Your task to perform on an android device: Search for a 100 ft extension cord Image 0: 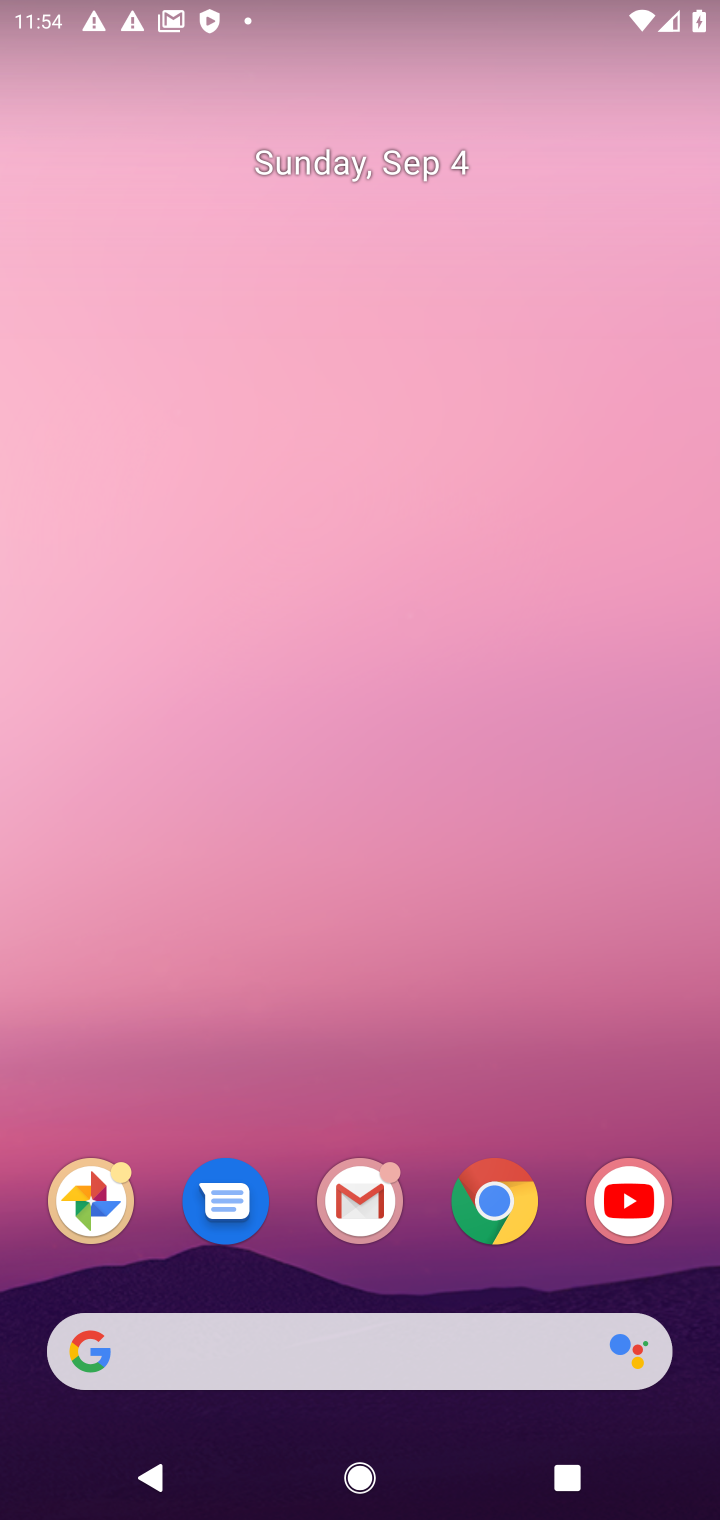
Step 0: click (494, 1206)
Your task to perform on an android device: Search for a 100 ft extension cord Image 1: 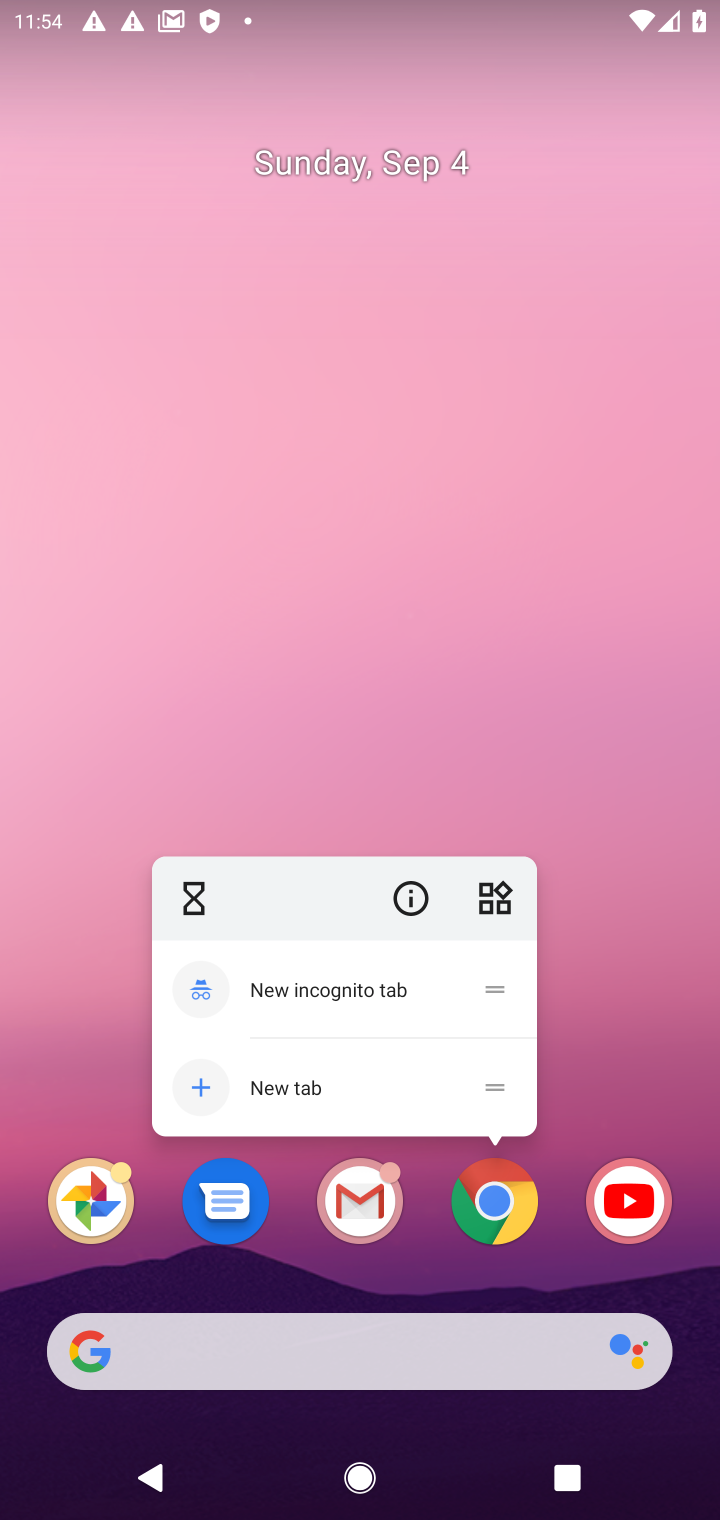
Step 1: click (484, 1202)
Your task to perform on an android device: Search for a 100 ft extension cord Image 2: 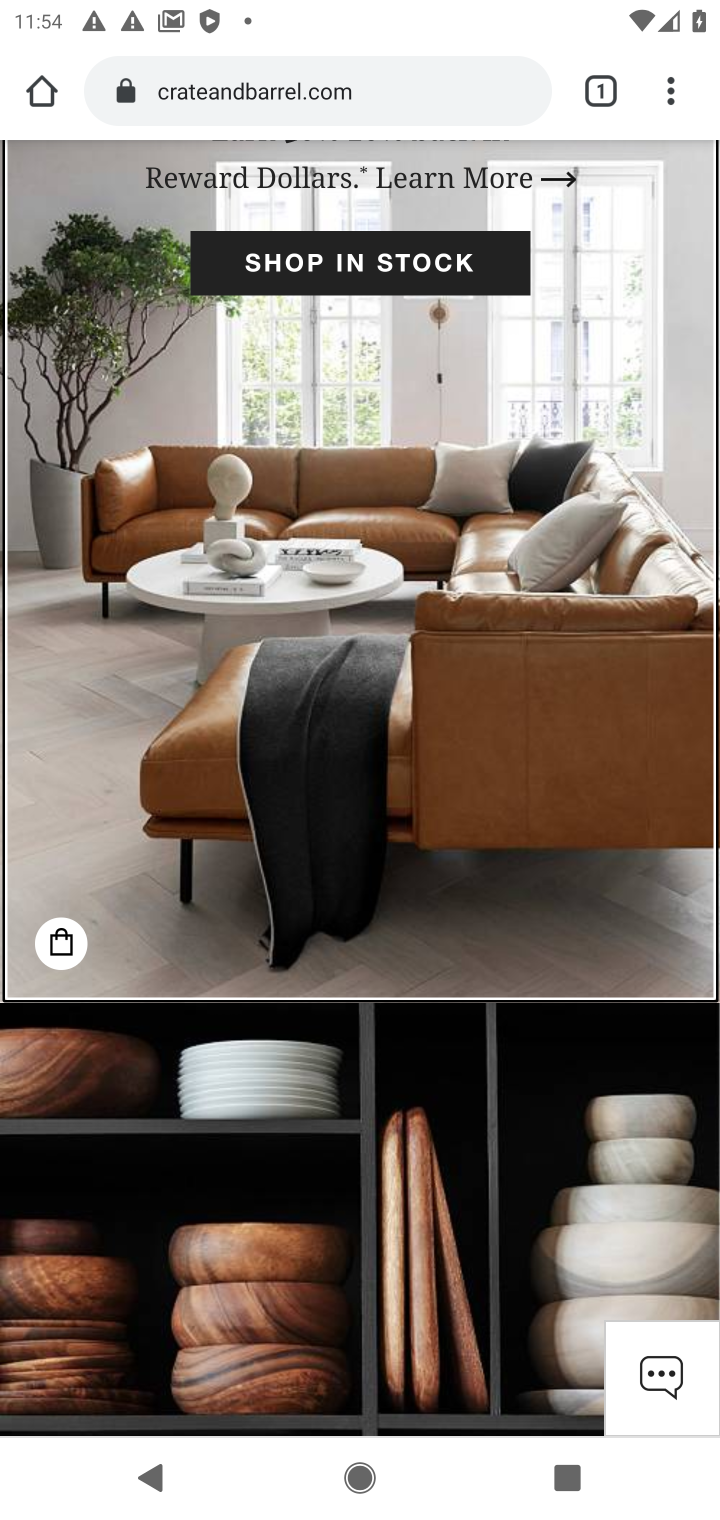
Step 2: click (345, 70)
Your task to perform on an android device: Search for a 100 ft extension cord Image 3: 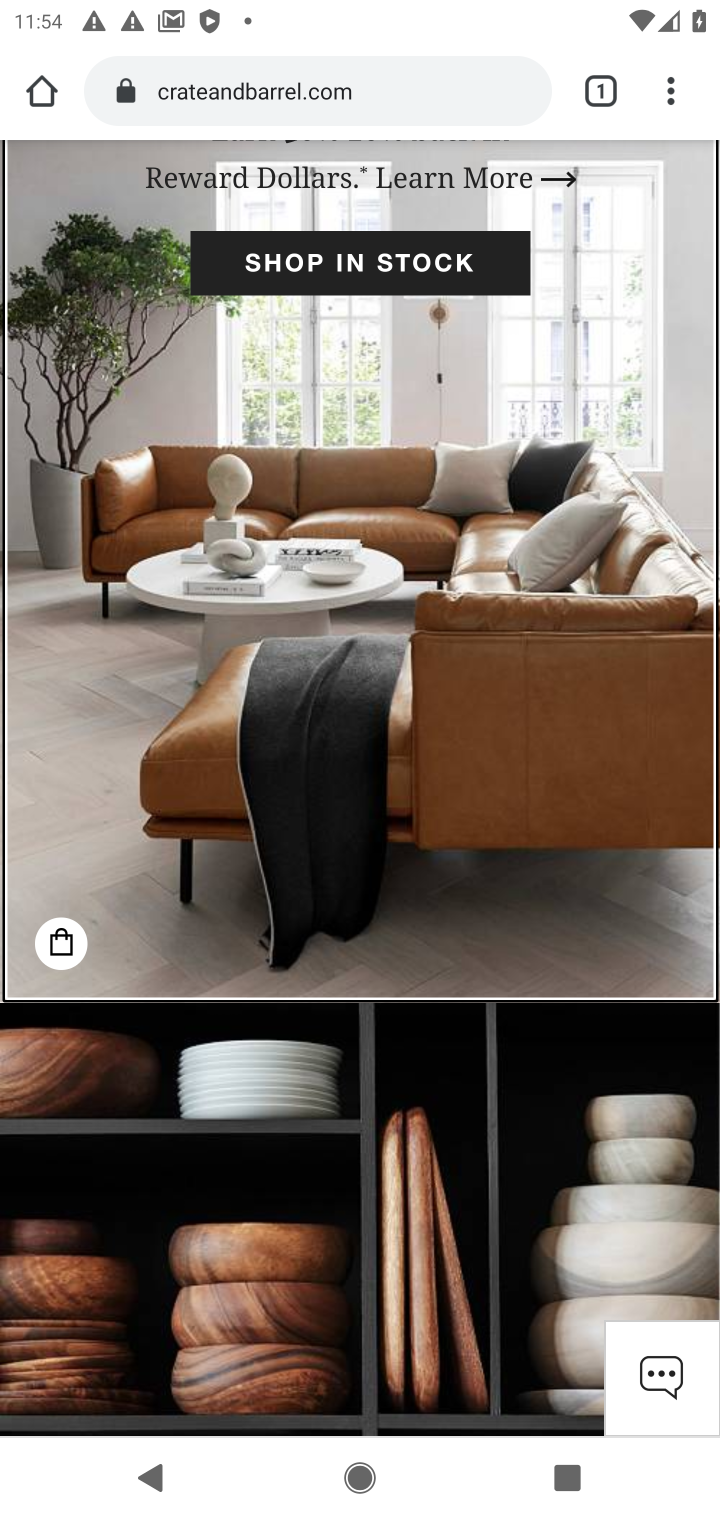
Step 3: click (327, 96)
Your task to perform on an android device: Search for a 100 ft extension cord Image 4: 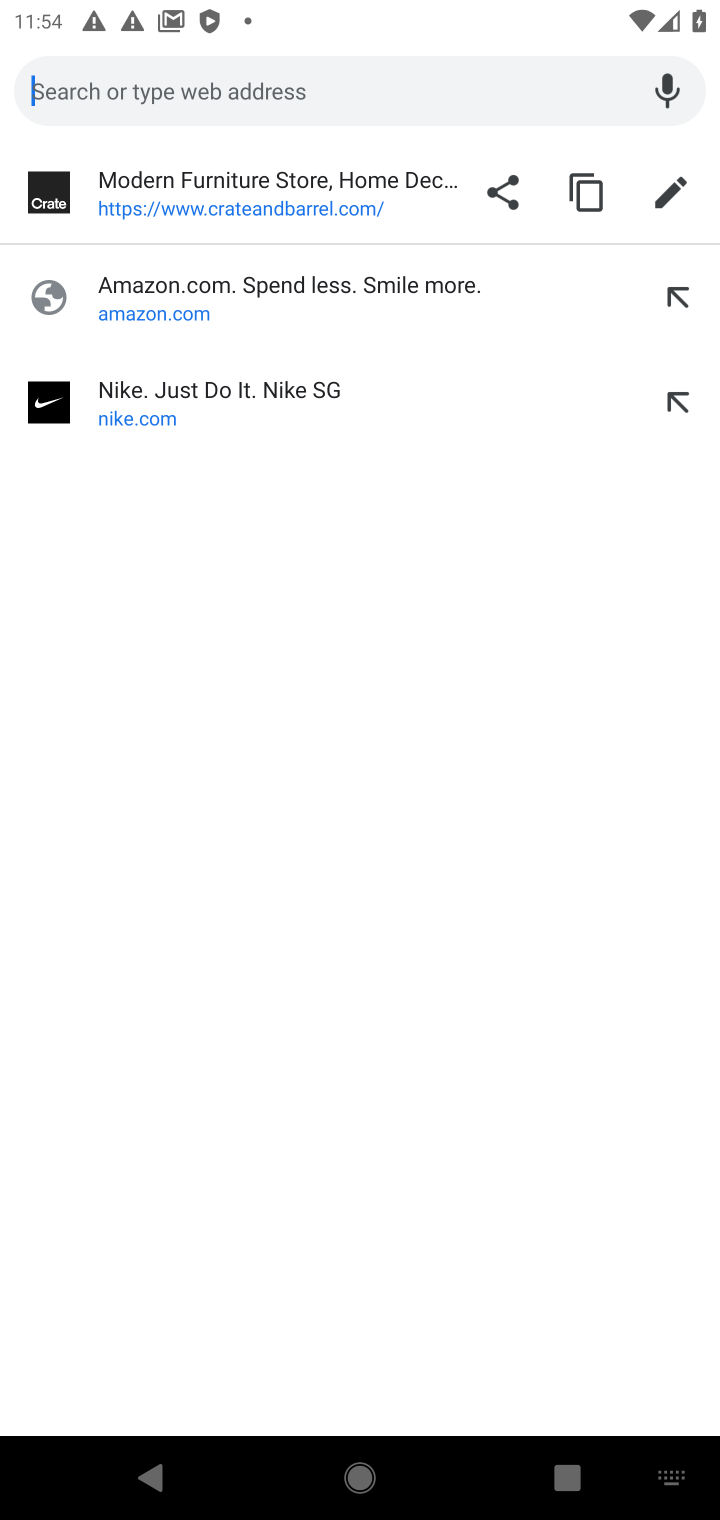
Step 4: type "100 ft extension cord"
Your task to perform on an android device: Search for a 100 ft extension cord Image 5: 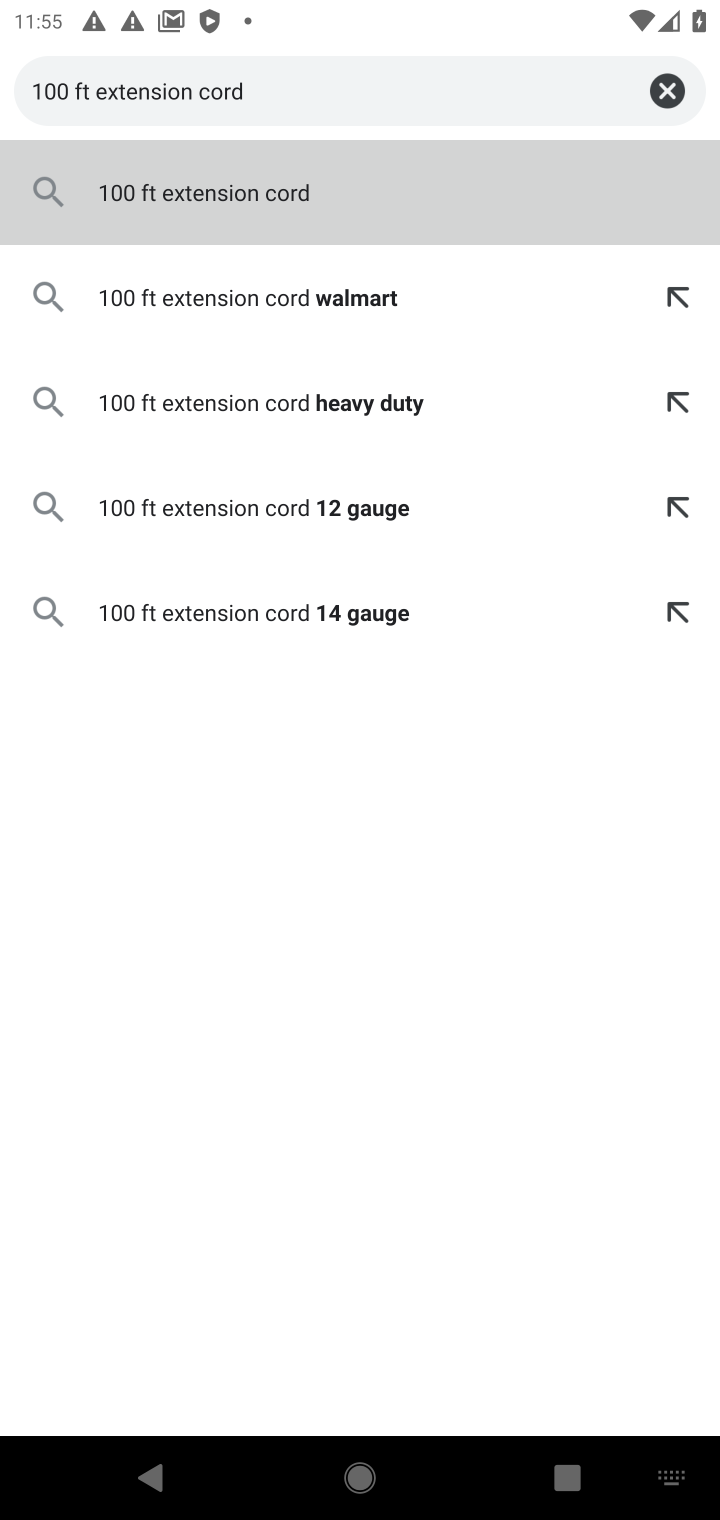
Step 5: type ""
Your task to perform on an android device: Search for a 100 ft extension cord Image 6: 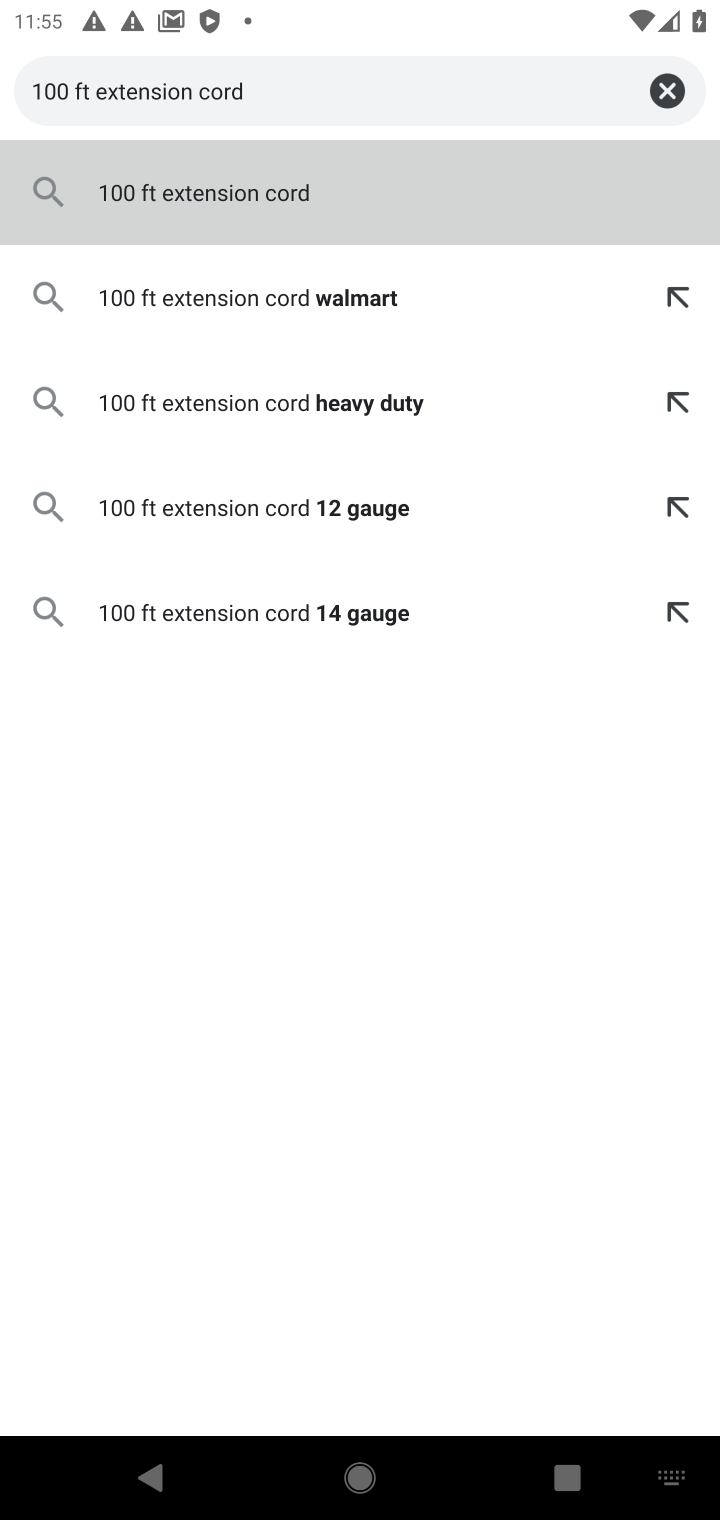
Step 6: click (223, 86)
Your task to perform on an android device: Search for a 100 ft extension cord Image 7: 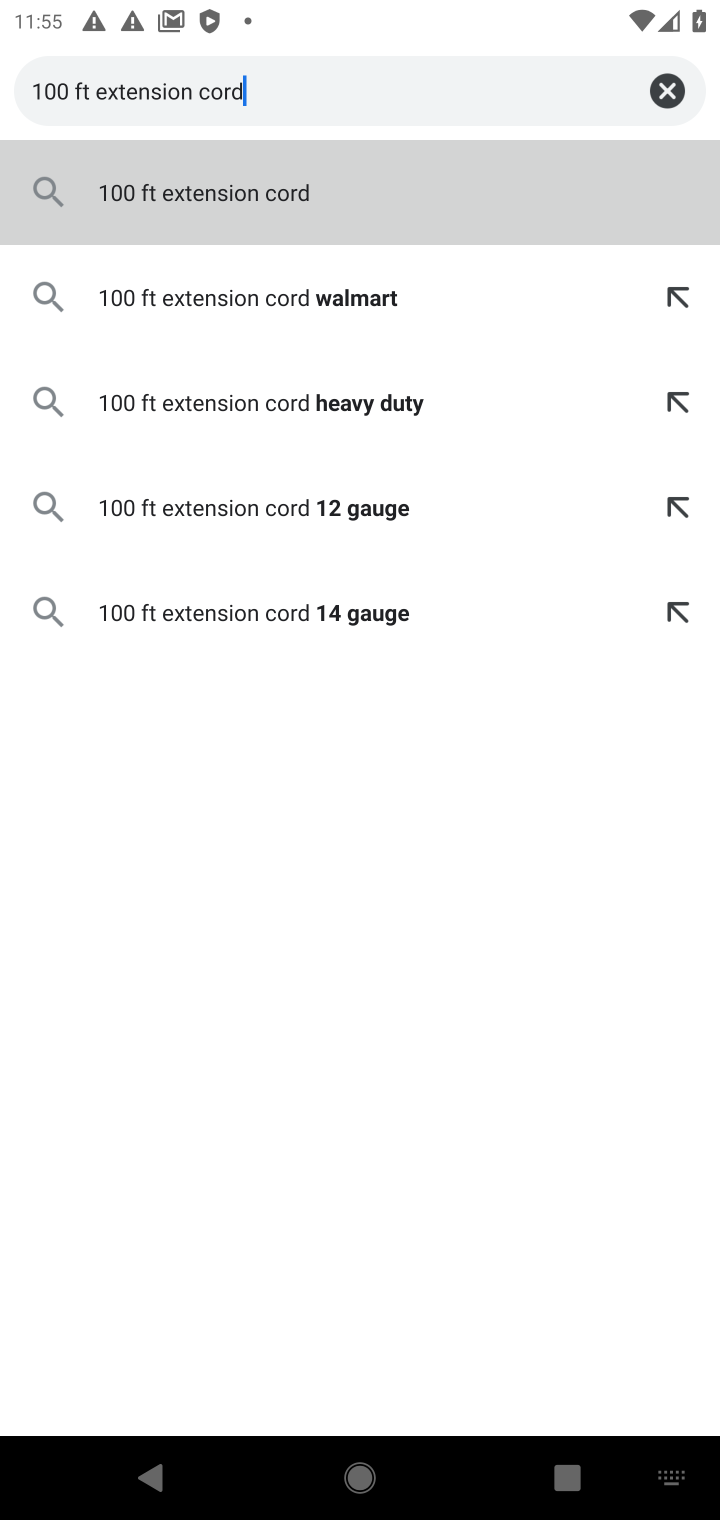
Step 7: click (236, 194)
Your task to perform on an android device: Search for a 100 ft extension cord Image 8: 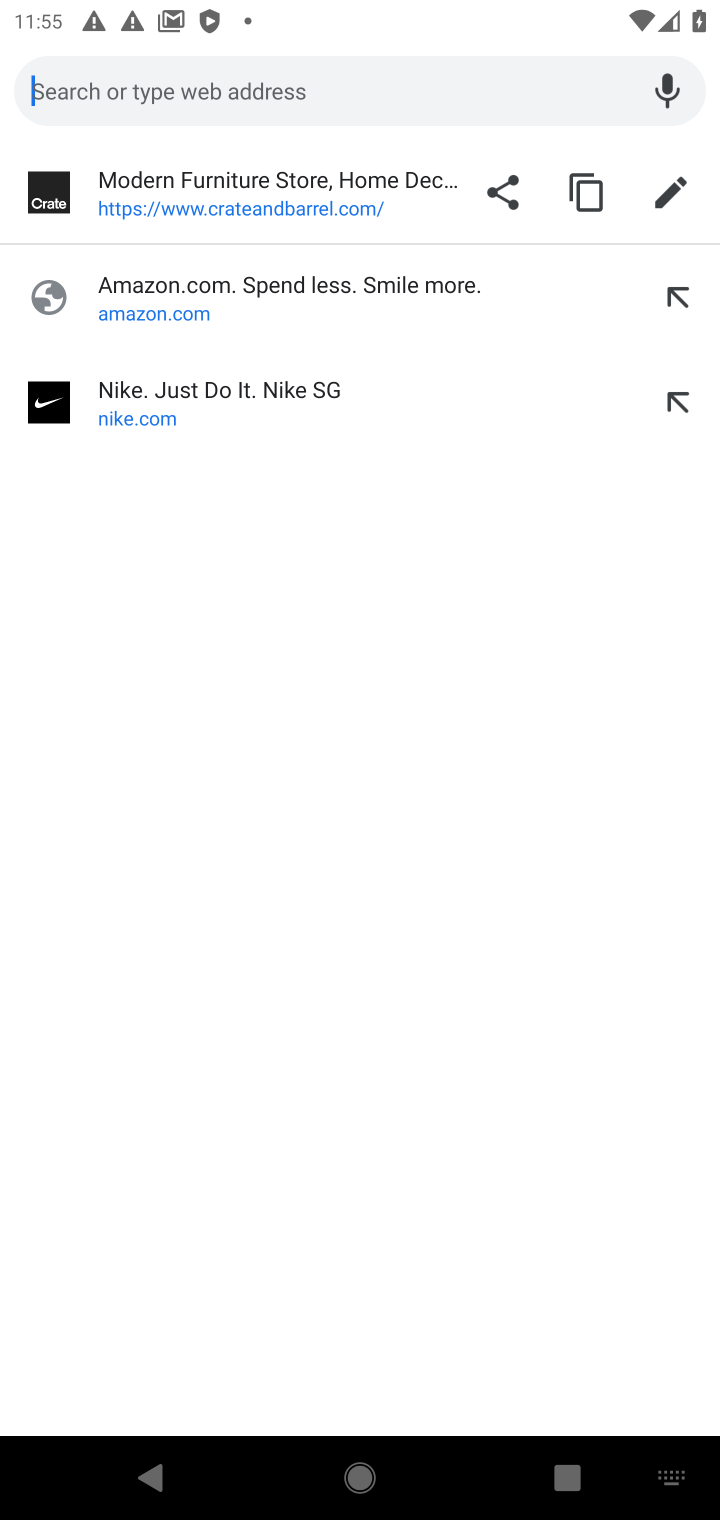
Step 8: click (300, 100)
Your task to perform on an android device: Search for a 100 ft extension cord Image 9: 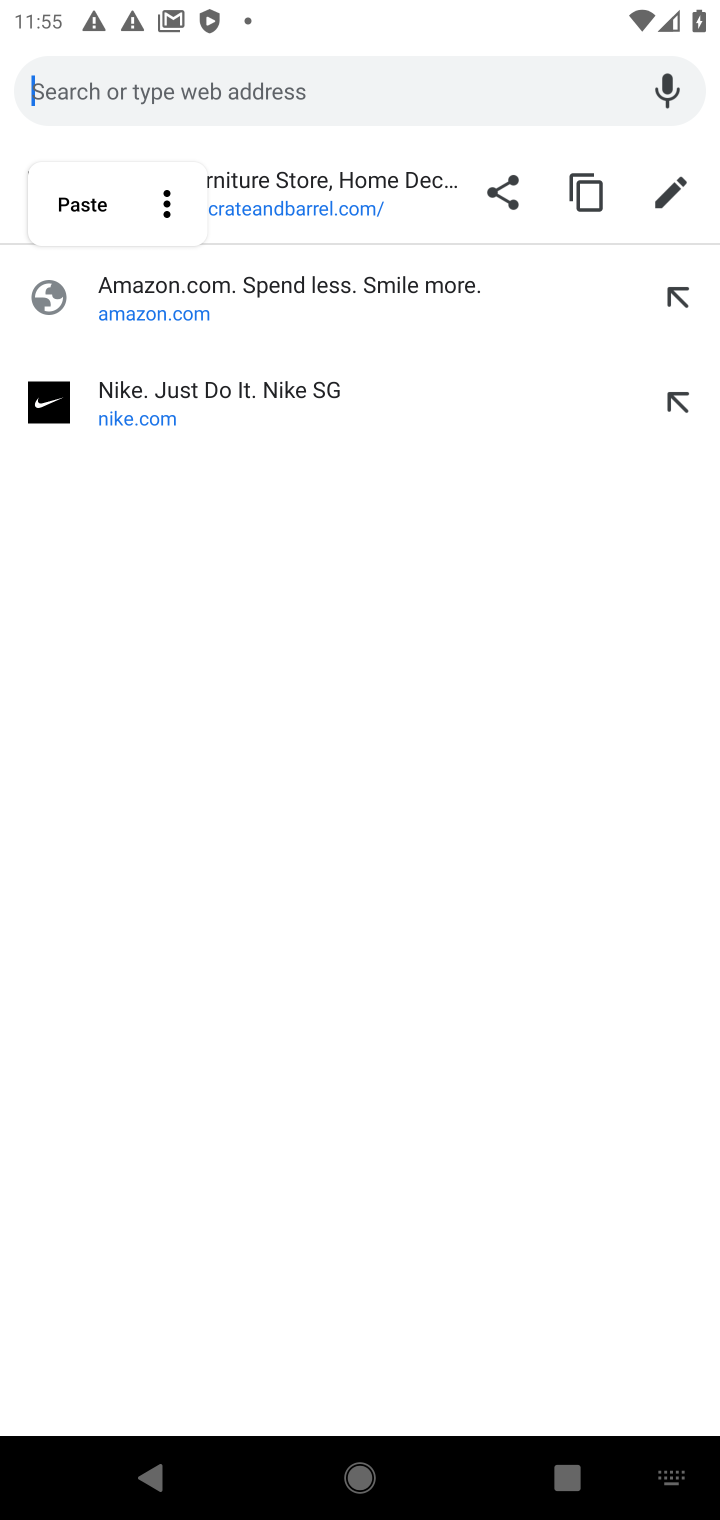
Step 9: type "100 ft extension cord"
Your task to perform on an android device: Search for a 100 ft extension cord Image 10: 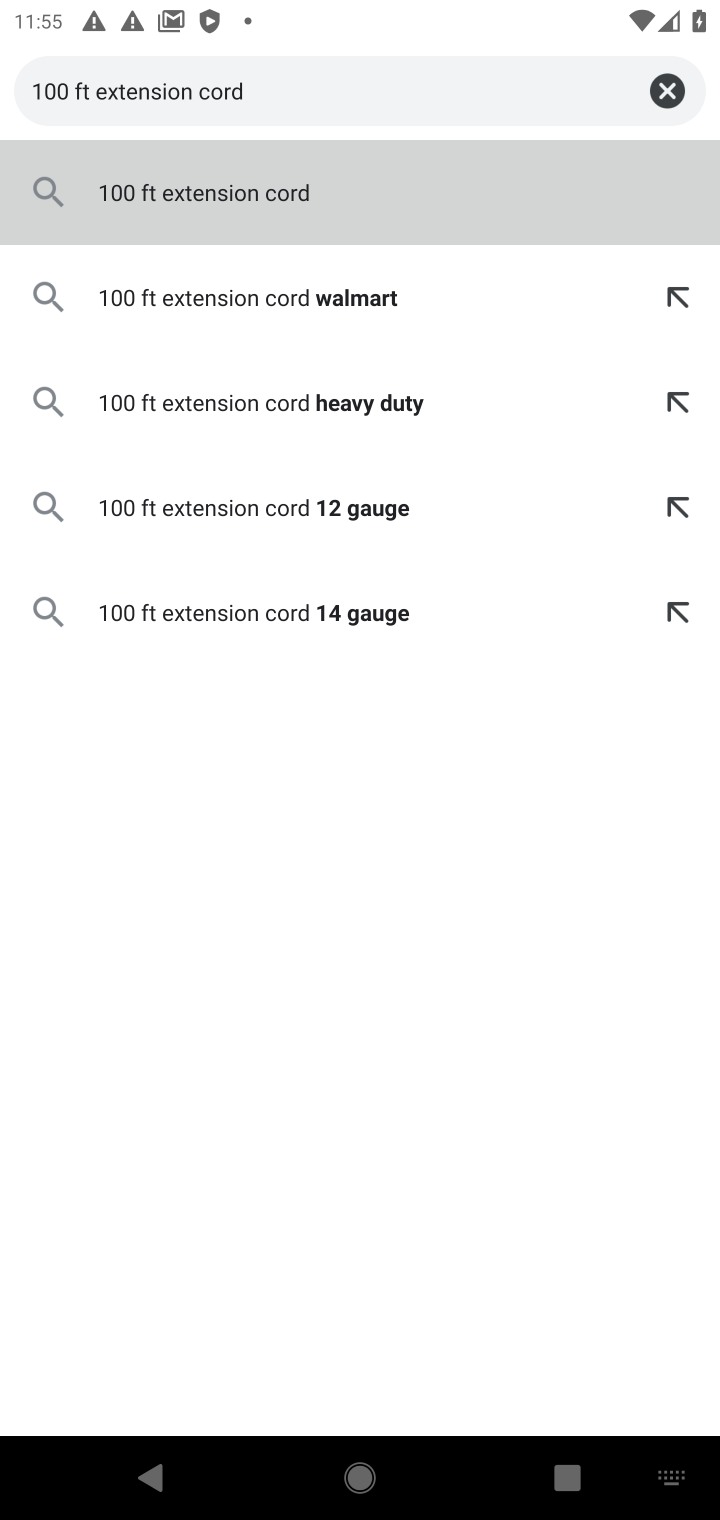
Step 10: press back button
Your task to perform on an android device: Search for a 100 ft extension cord Image 11: 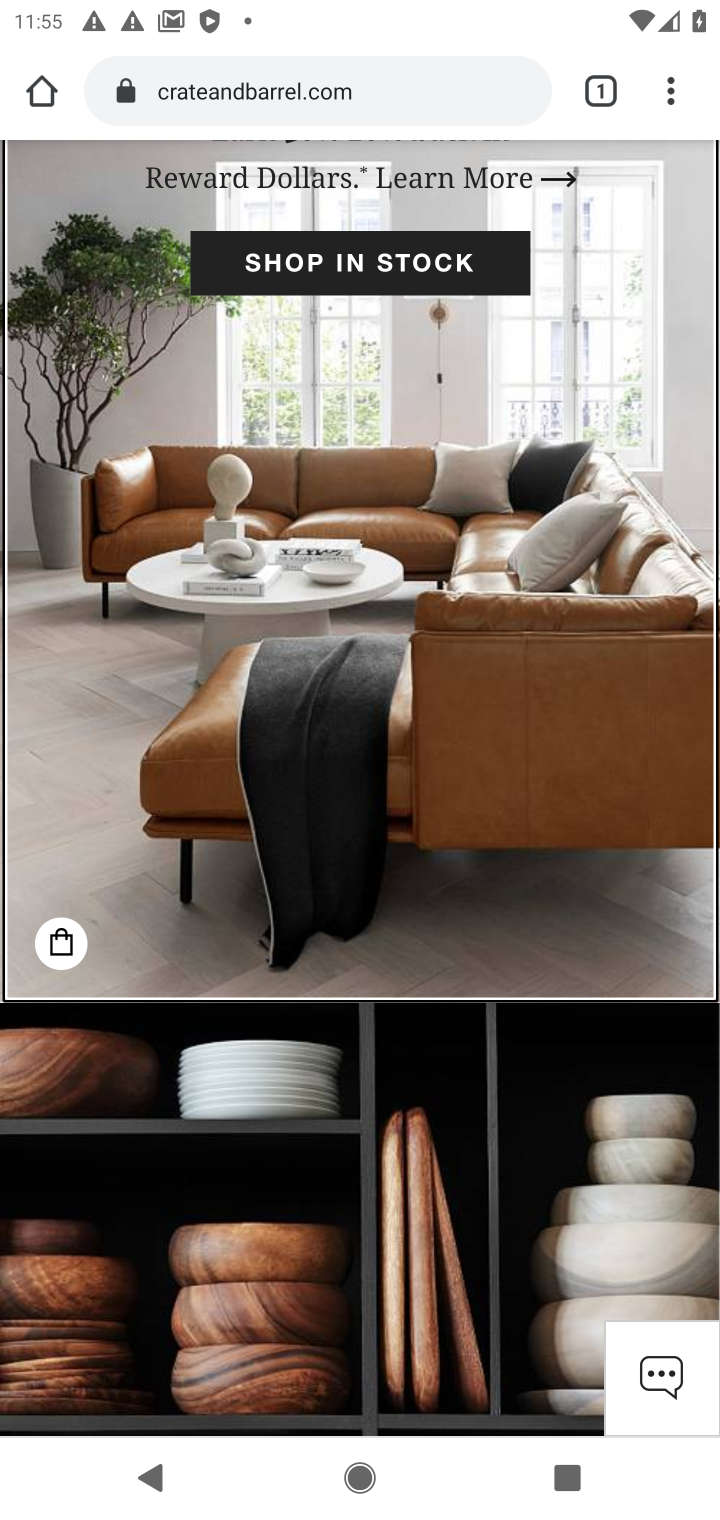
Step 11: click (233, 300)
Your task to perform on an android device: Search for a 100 ft extension cord Image 12: 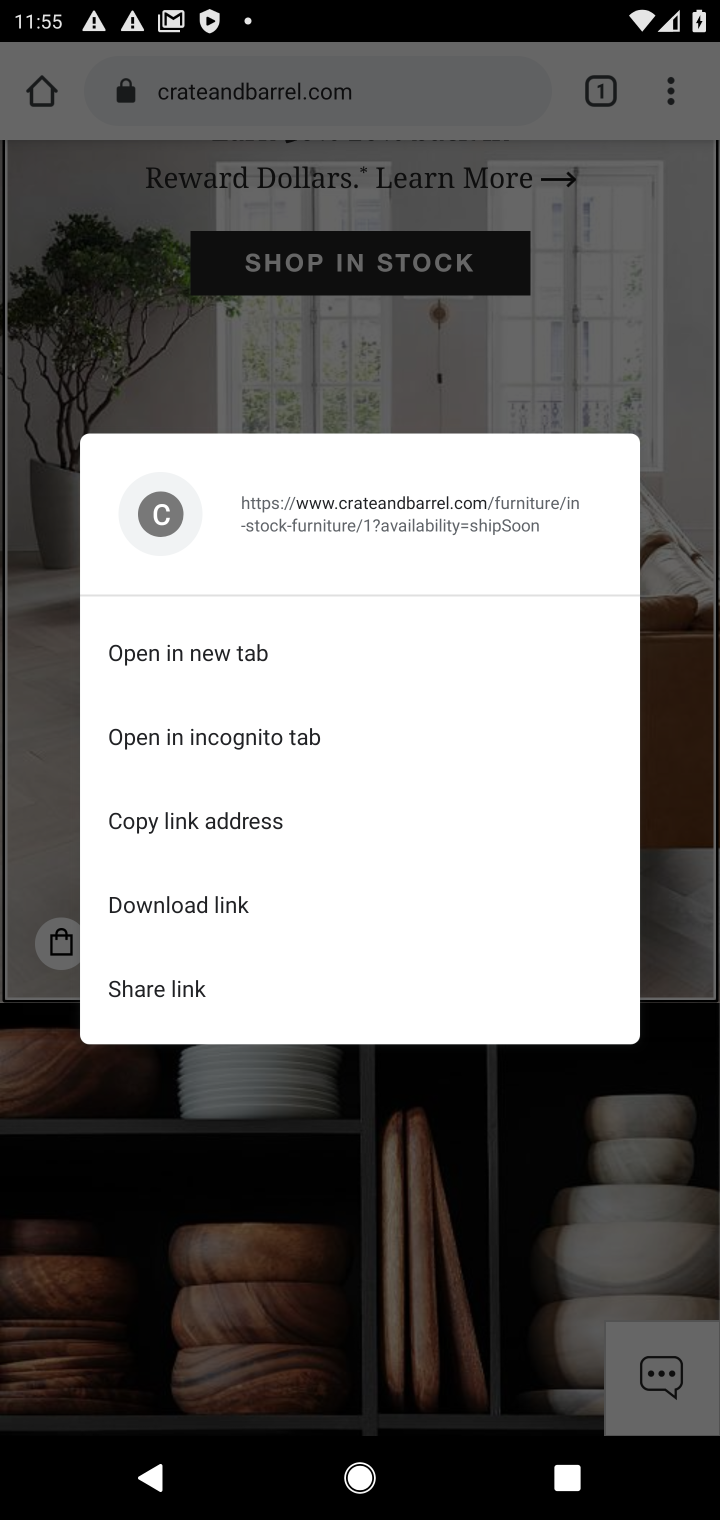
Step 12: click (356, 66)
Your task to perform on an android device: Search for a 100 ft extension cord Image 13: 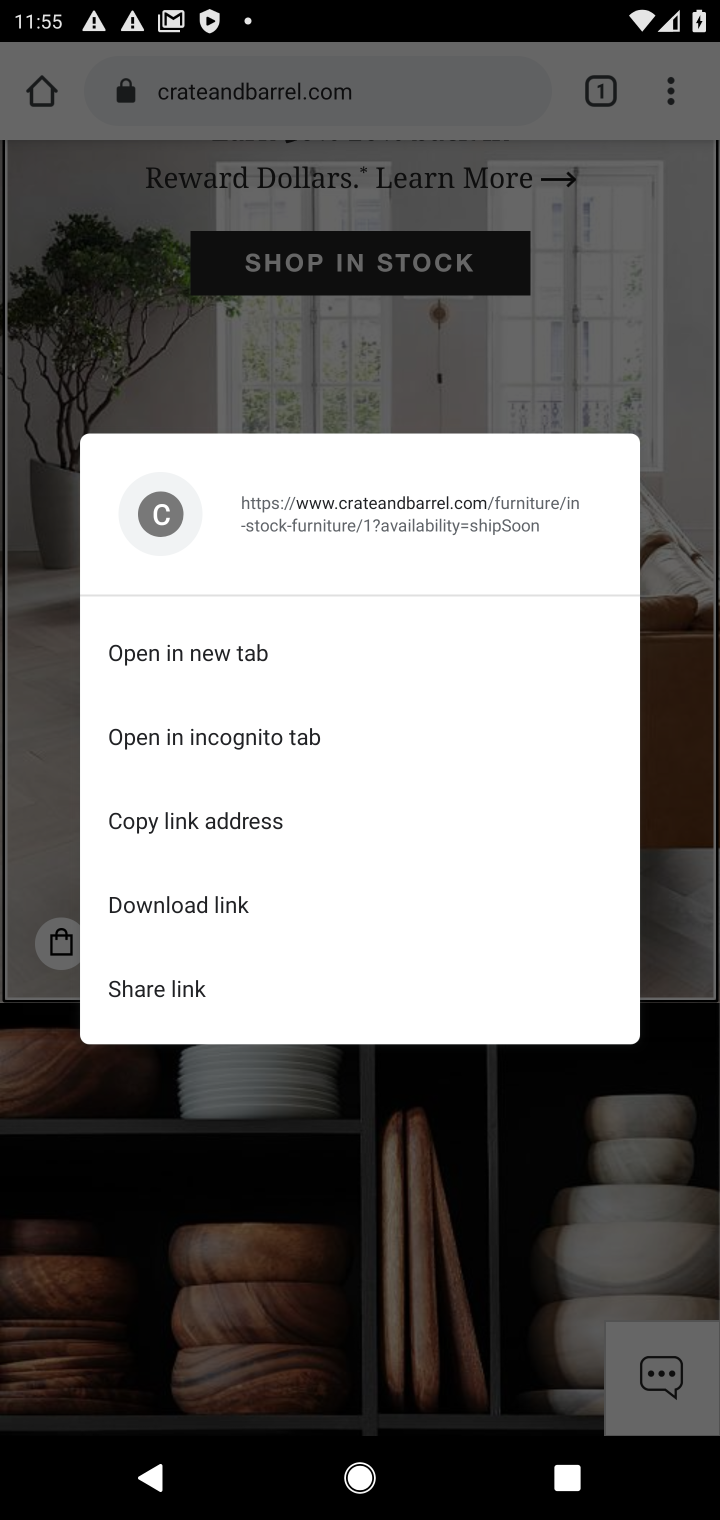
Step 13: click (325, 93)
Your task to perform on an android device: Search for a 100 ft extension cord Image 14: 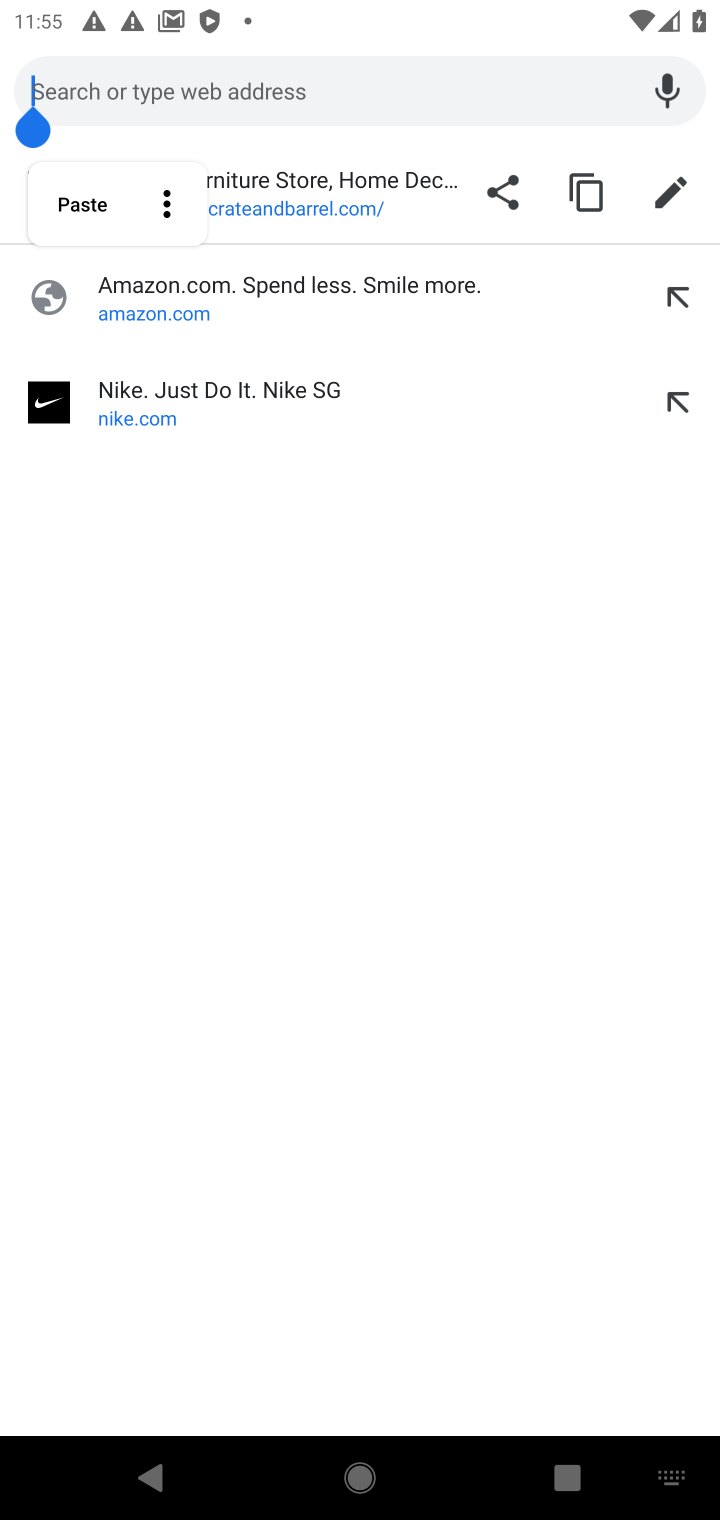
Step 14: press home button
Your task to perform on an android device: Search for a 100 ft extension cord Image 15: 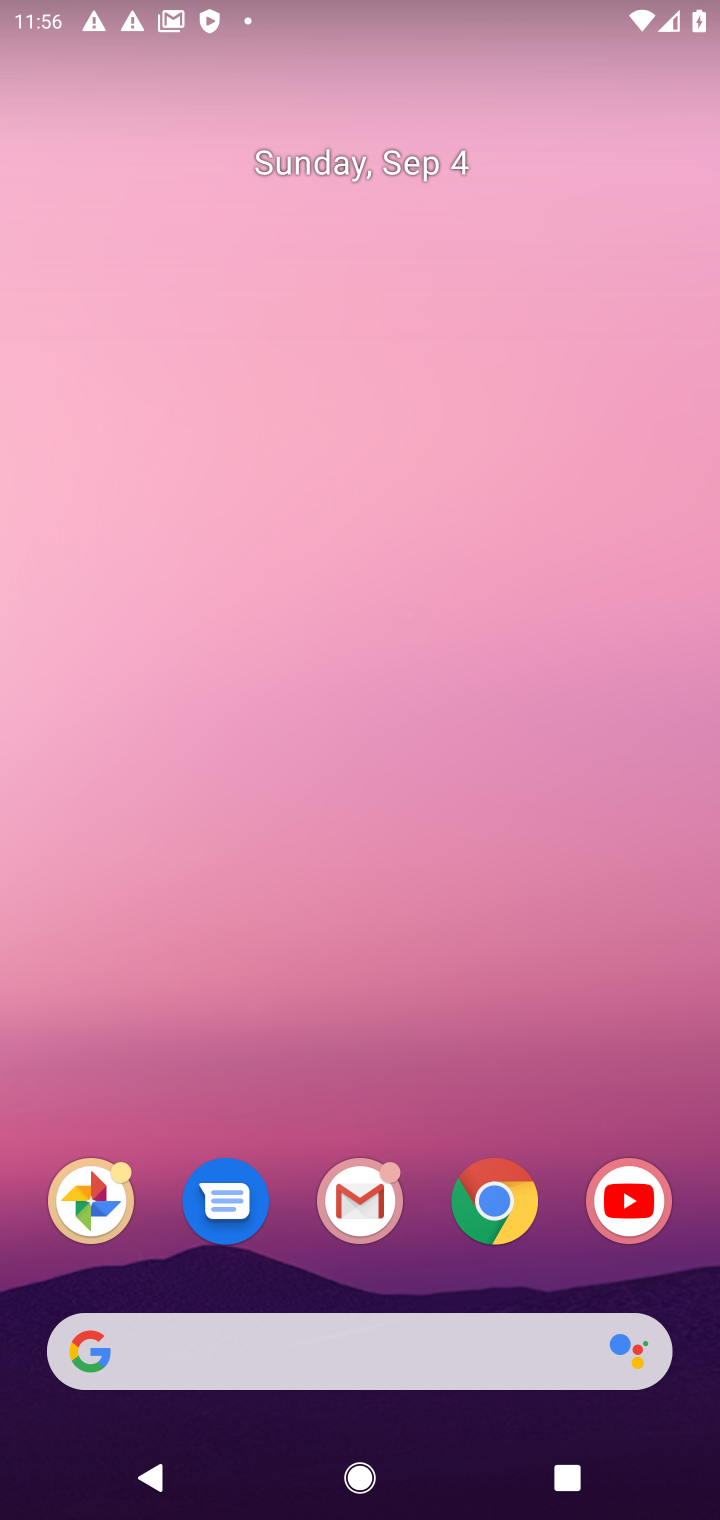
Step 15: click (466, 1226)
Your task to perform on an android device: Search for a 100 ft extension cord Image 16: 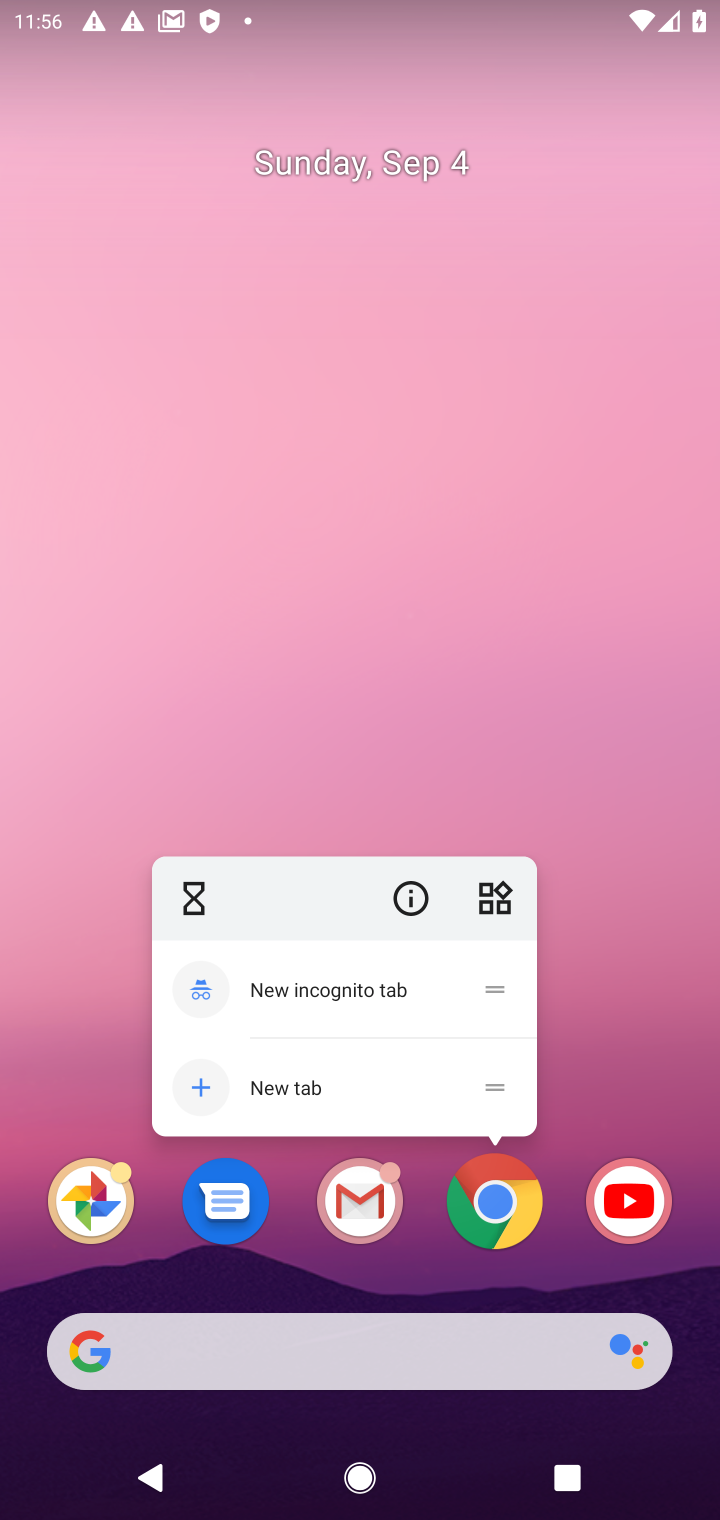
Step 16: click (487, 1212)
Your task to perform on an android device: Search for a 100 ft extension cord Image 17: 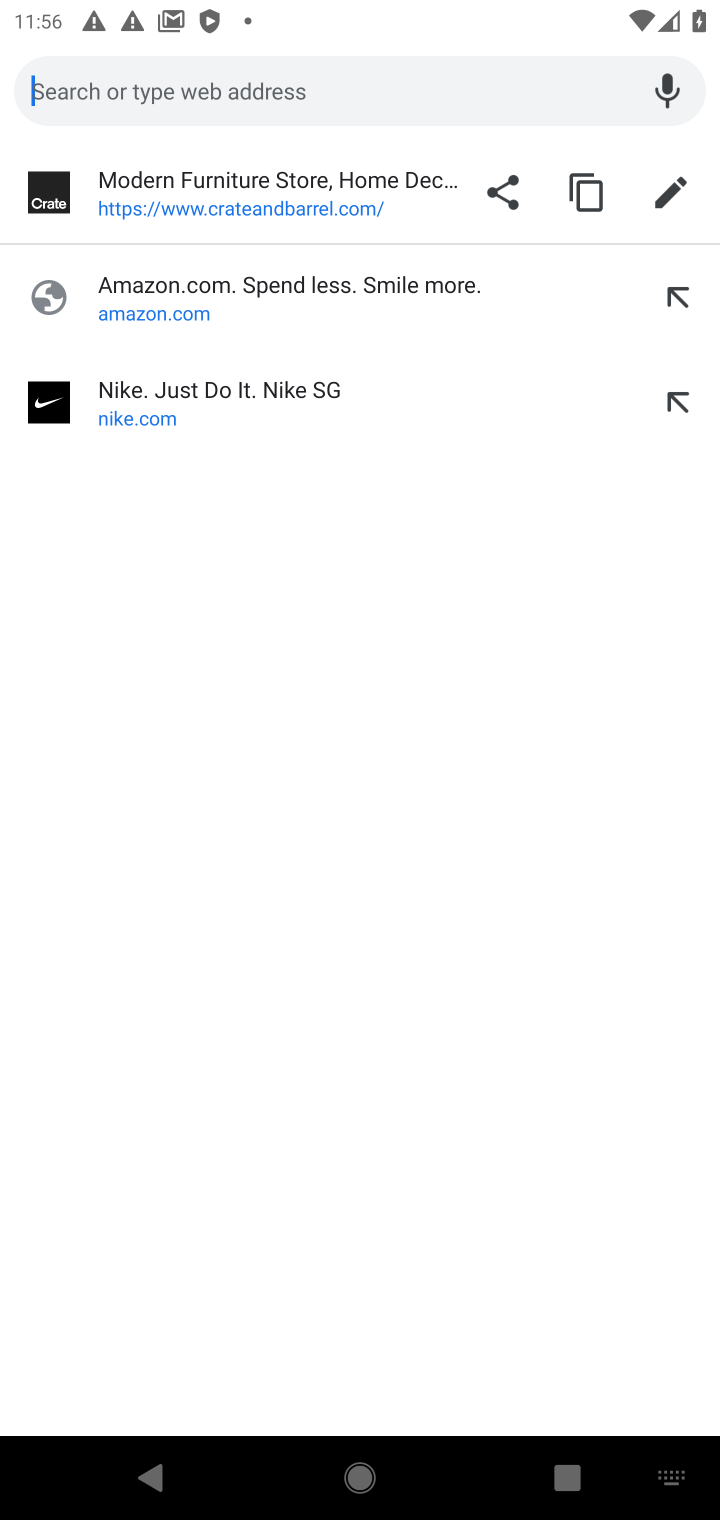
Step 17: type "100 ft extension cord"
Your task to perform on an android device: Search for a 100 ft extension cord Image 18: 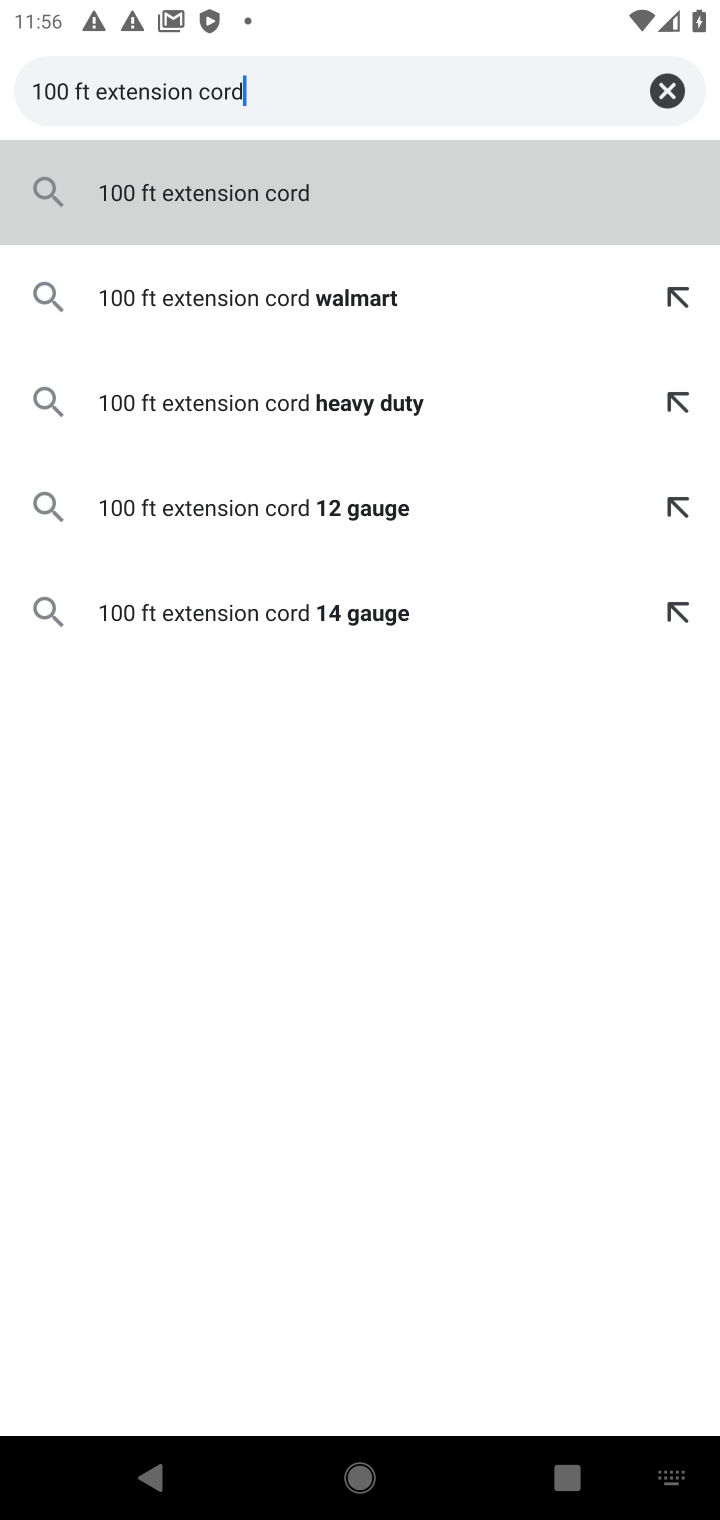
Step 18: type ""
Your task to perform on an android device: Search for a 100 ft extension cord Image 19: 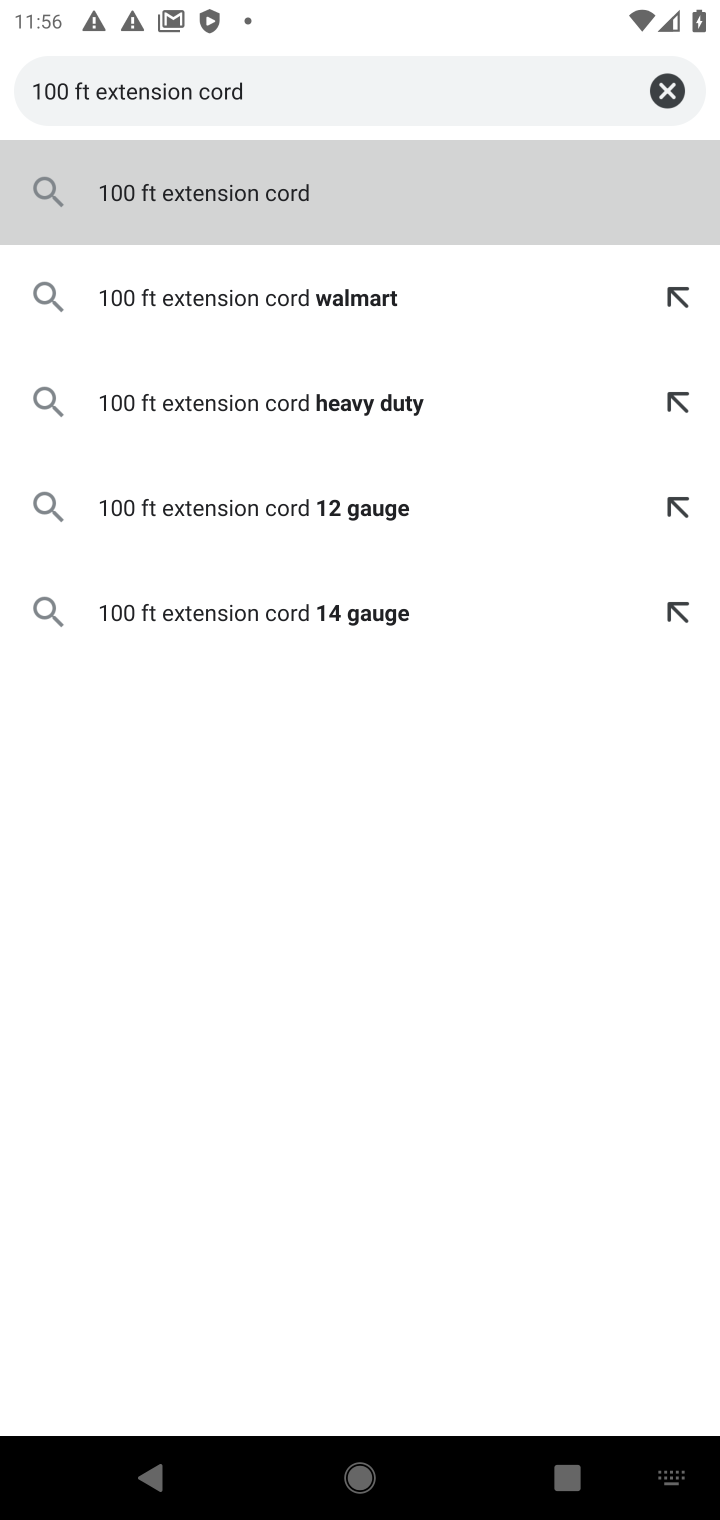
Step 19: click (239, 298)
Your task to perform on an android device: Search for a 100 ft extension cord Image 20: 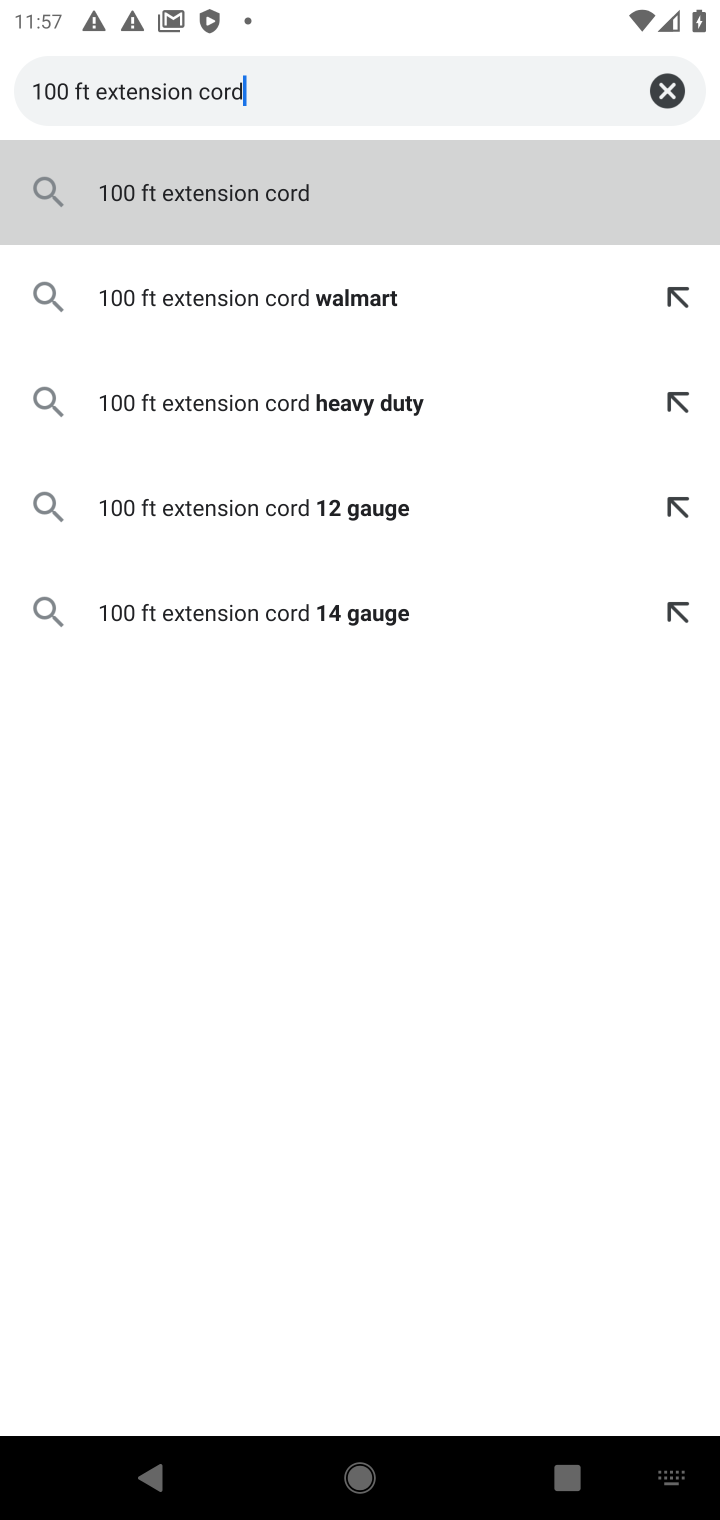
Step 20: click (344, 287)
Your task to perform on an android device: Search for a 100 ft extension cord Image 21: 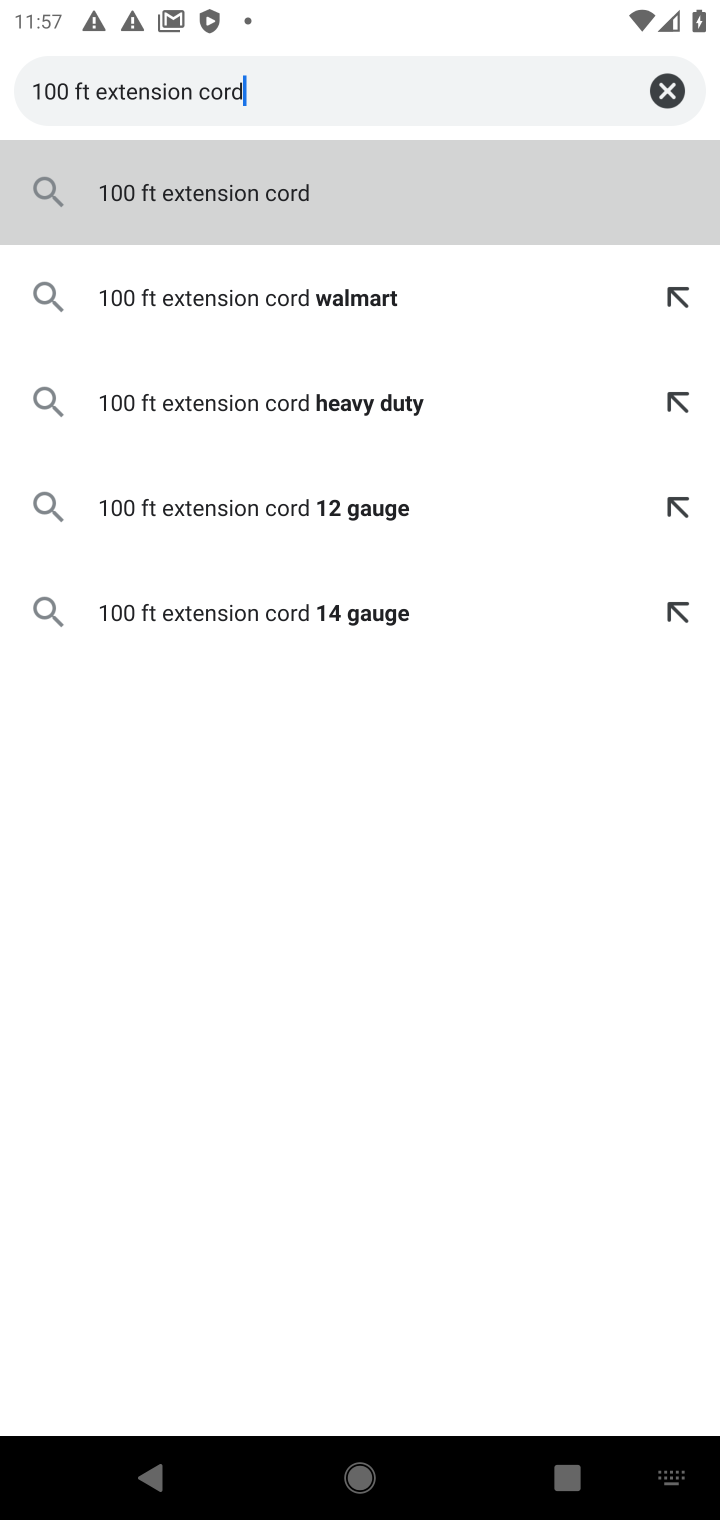
Step 21: click (338, 287)
Your task to perform on an android device: Search for a 100 ft extension cord Image 22: 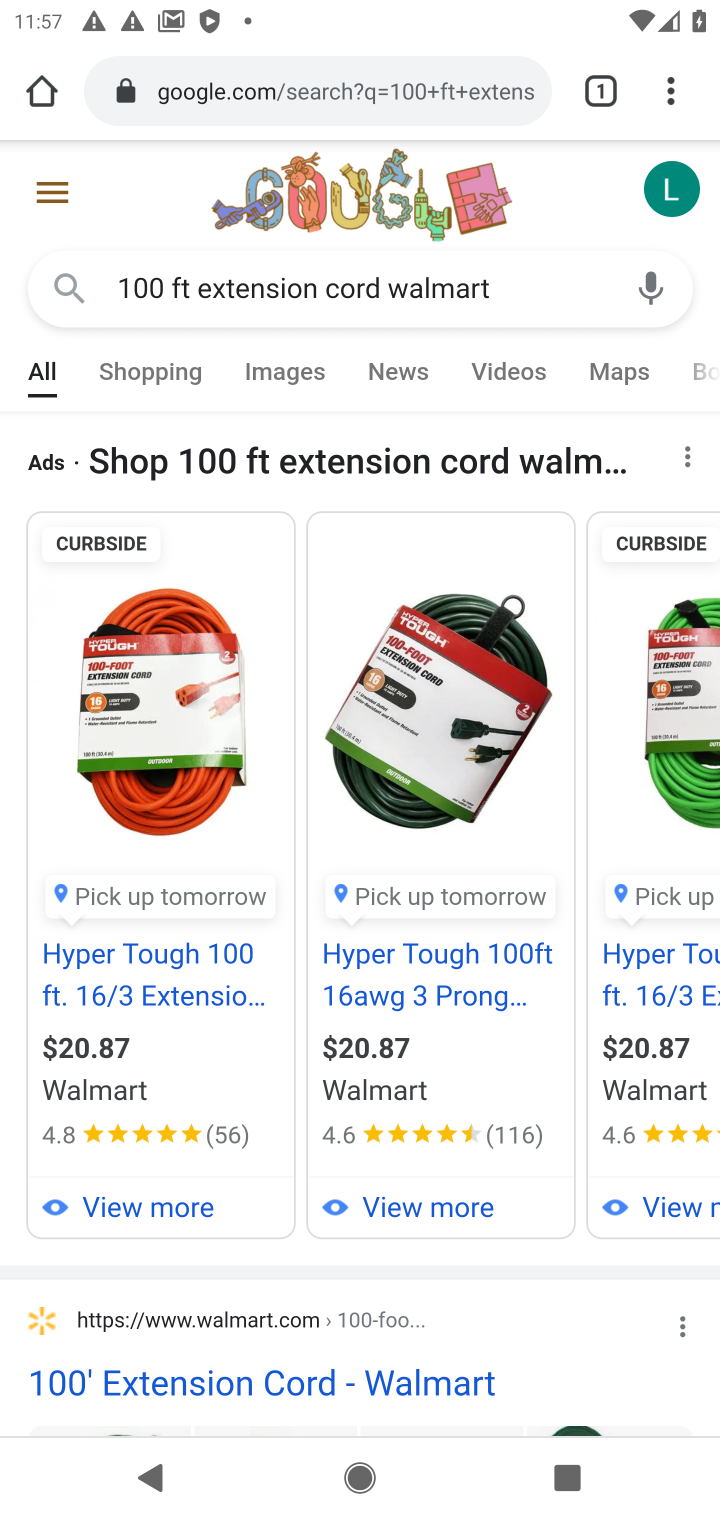
Step 22: task complete